Your task to perform on an android device: see tabs open on other devices in the chrome app Image 0: 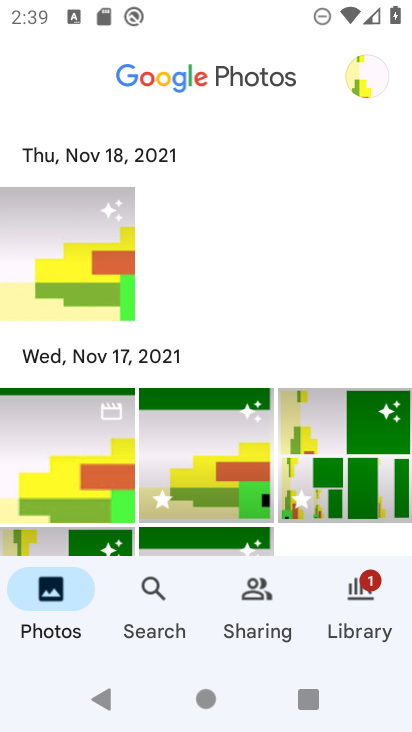
Step 0: press home button
Your task to perform on an android device: see tabs open on other devices in the chrome app Image 1: 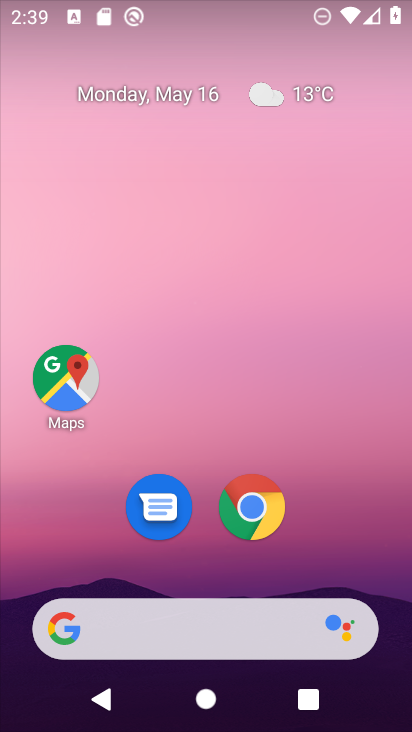
Step 1: drag from (372, 541) to (330, 155)
Your task to perform on an android device: see tabs open on other devices in the chrome app Image 2: 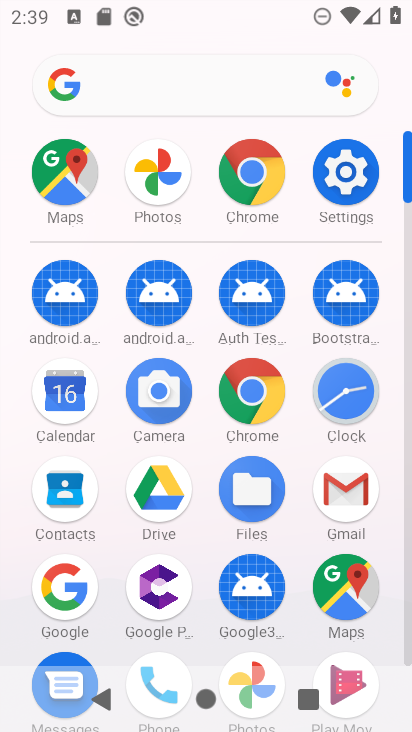
Step 2: click (247, 388)
Your task to perform on an android device: see tabs open on other devices in the chrome app Image 3: 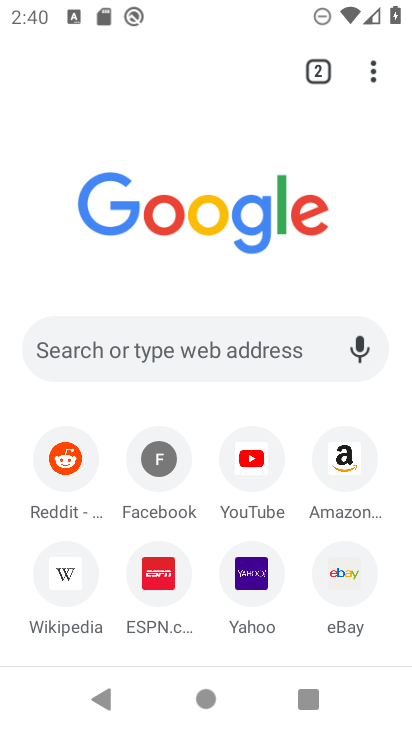
Step 3: click (379, 74)
Your task to perform on an android device: see tabs open on other devices in the chrome app Image 4: 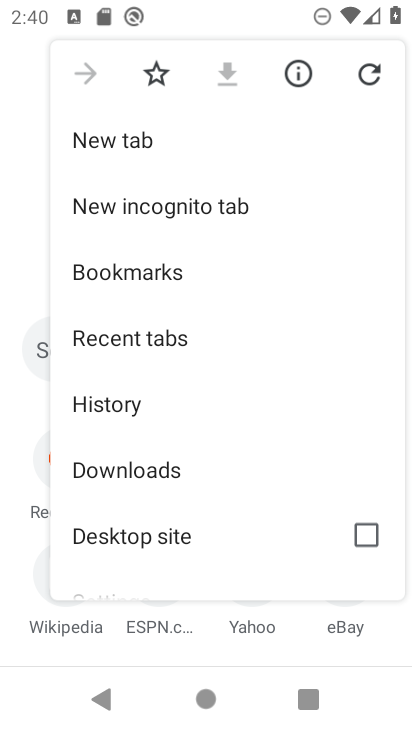
Step 4: click (158, 339)
Your task to perform on an android device: see tabs open on other devices in the chrome app Image 5: 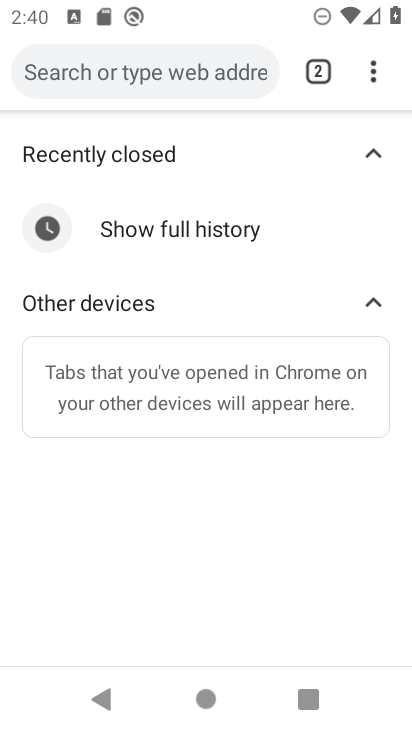
Step 5: click (339, 301)
Your task to perform on an android device: see tabs open on other devices in the chrome app Image 6: 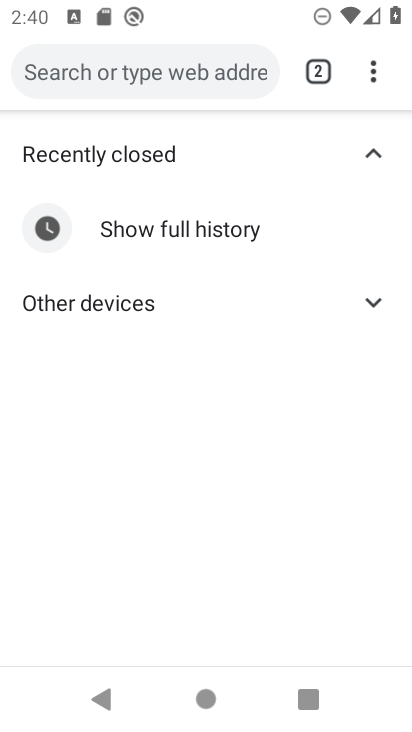
Step 6: click (386, 309)
Your task to perform on an android device: see tabs open on other devices in the chrome app Image 7: 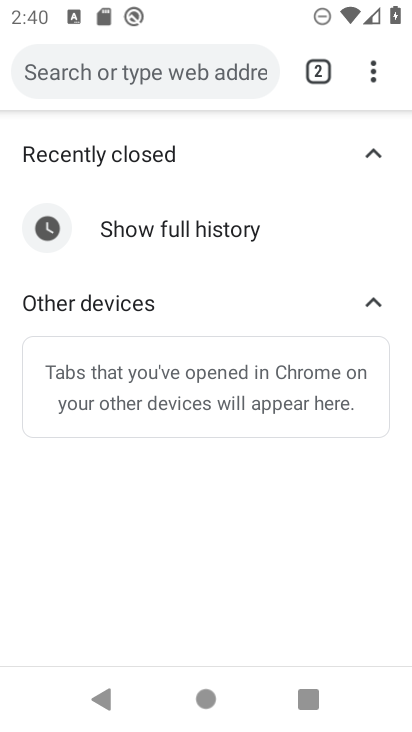
Step 7: click (261, 396)
Your task to perform on an android device: see tabs open on other devices in the chrome app Image 8: 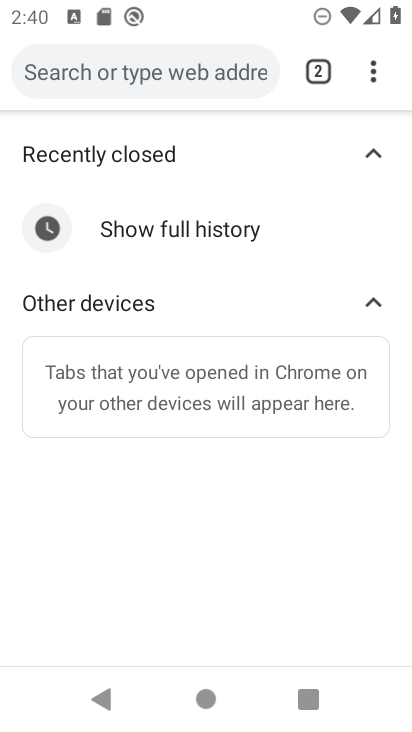
Step 8: click (331, 165)
Your task to perform on an android device: see tabs open on other devices in the chrome app Image 9: 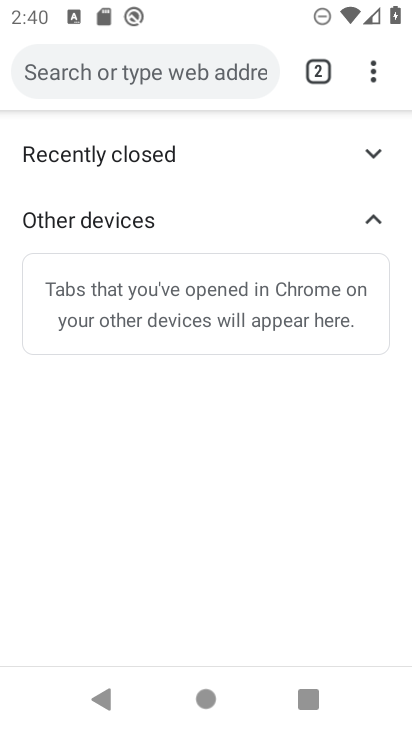
Step 9: click (340, 226)
Your task to perform on an android device: see tabs open on other devices in the chrome app Image 10: 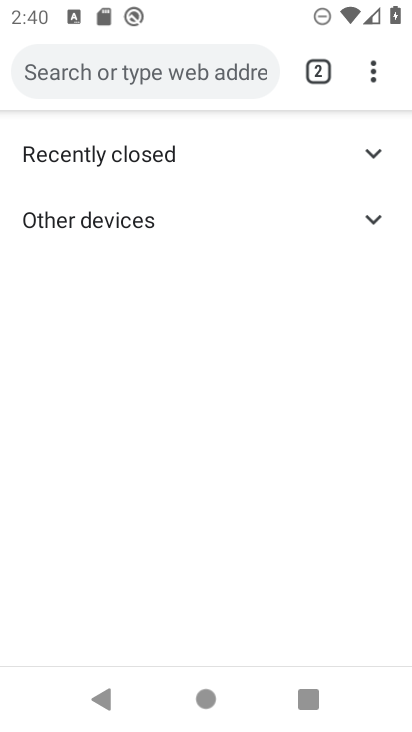
Step 10: click (385, 219)
Your task to perform on an android device: see tabs open on other devices in the chrome app Image 11: 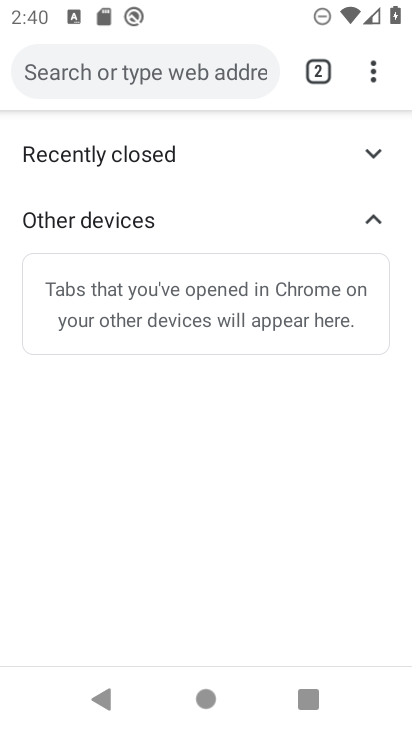
Step 11: task complete